Your task to perform on an android device: toggle notification dots Image 0: 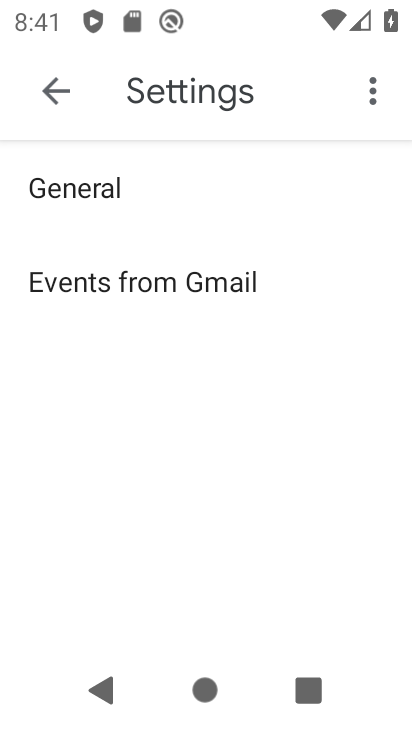
Step 0: press home button
Your task to perform on an android device: toggle notification dots Image 1: 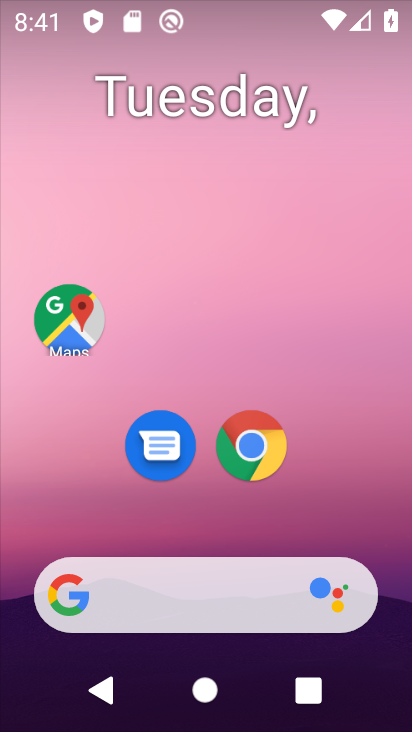
Step 1: drag from (305, 518) to (316, 58)
Your task to perform on an android device: toggle notification dots Image 2: 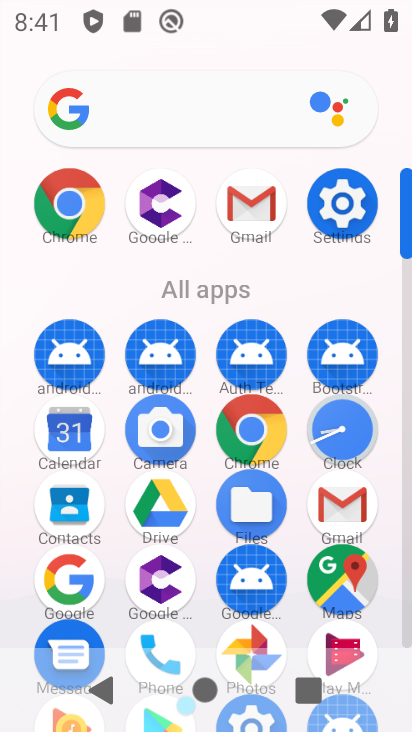
Step 2: click (351, 181)
Your task to perform on an android device: toggle notification dots Image 3: 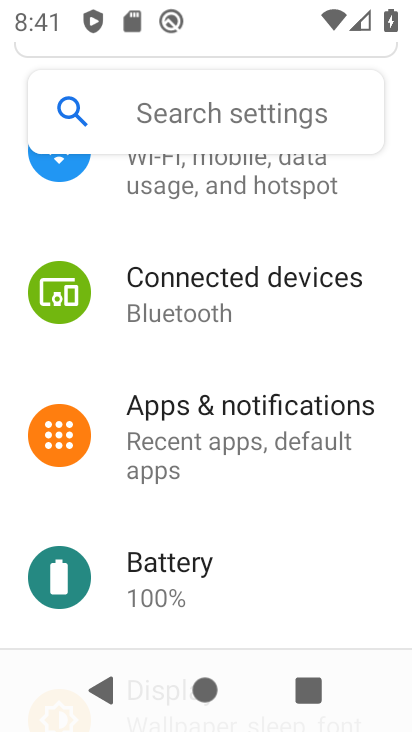
Step 3: click (154, 441)
Your task to perform on an android device: toggle notification dots Image 4: 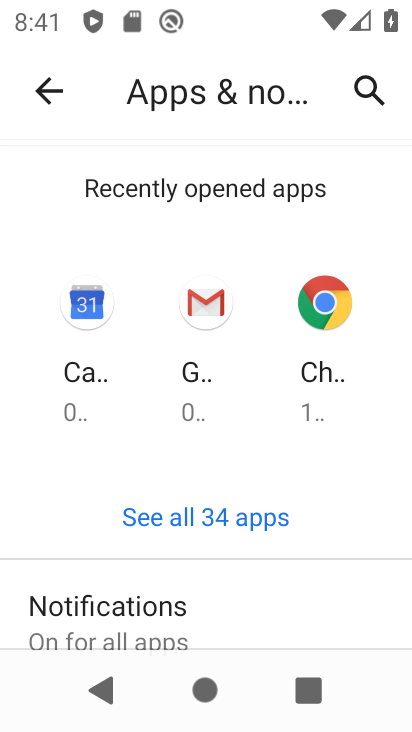
Step 4: drag from (293, 550) to (289, 227)
Your task to perform on an android device: toggle notification dots Image 5: 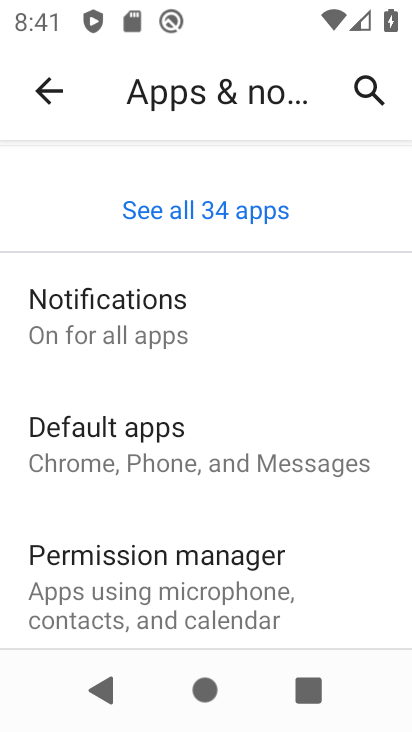
Step 5: click (257, 302)
Your task to perform on an android device: toggle notification dots Image 6: 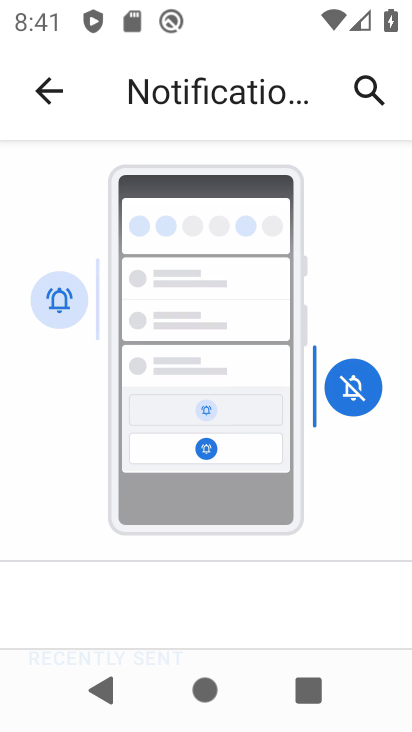
Step 6: drag from (297, 568) to (372, 6)
Your task to perform on an android device: toggle notification dots Image 7: 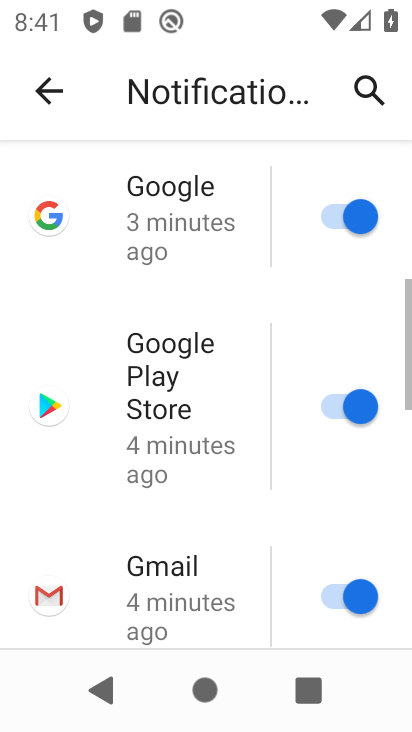
Step 7: drag from (229, 439) to (284, 9)
Your task to perform on an android device: toggle notification dots Image 8: 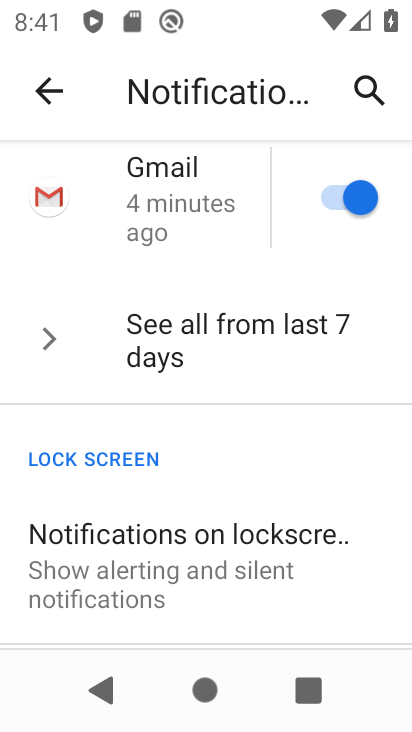
Step 8: drag from (216, 506) to (238, 21)
Your task to perform on an android device: toggle notification dots Image 9: 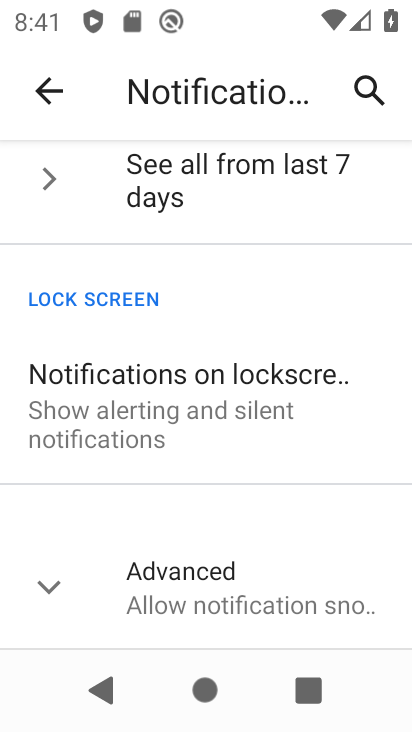
Step 9: click (147, 570)
Your task to perform on an android device: toggle notification dots Image 10: 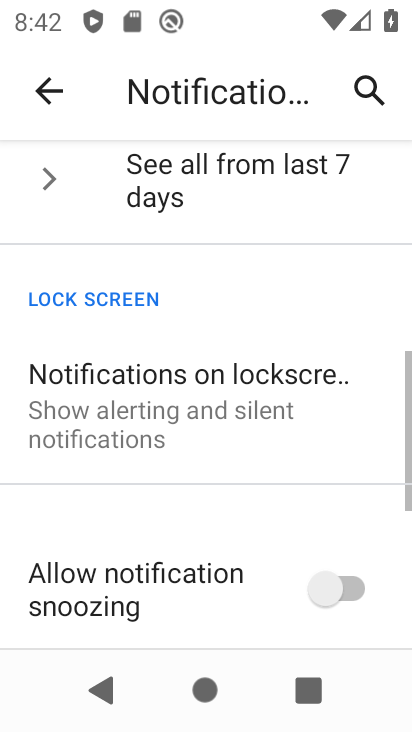
Step 10: drag from (291, 601) to (314, 282)
Your task to perform on an android device: toggle notification dots Image 11: 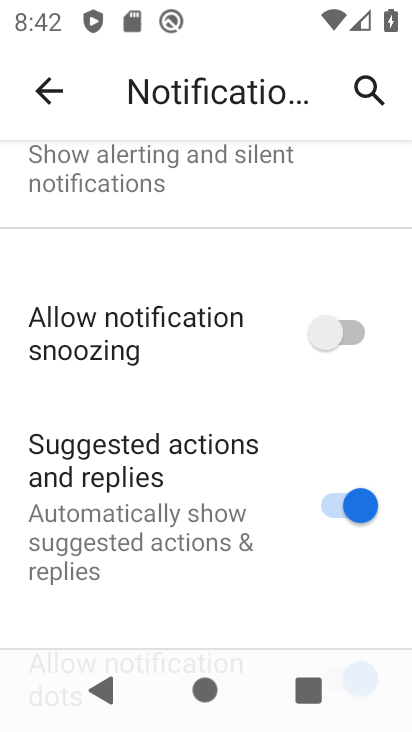
Step 11: drag from (315, 414) to (342, 169)
Your task to perform on an android device: toggle notification dots Image 12: 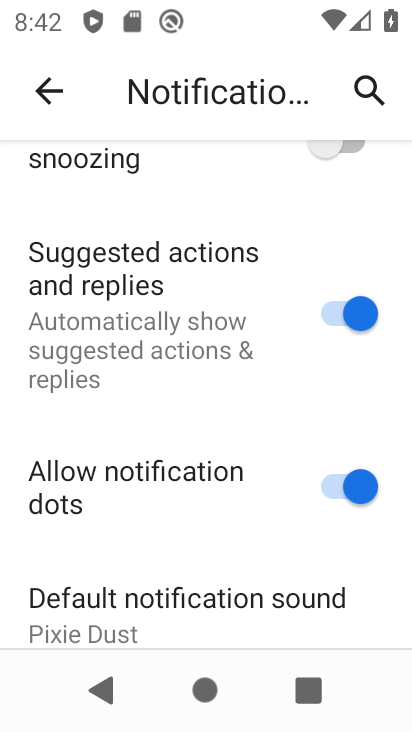
Step 12: click (356, 474)
Your task to perform on an android device: toggle notification dots Image 13: 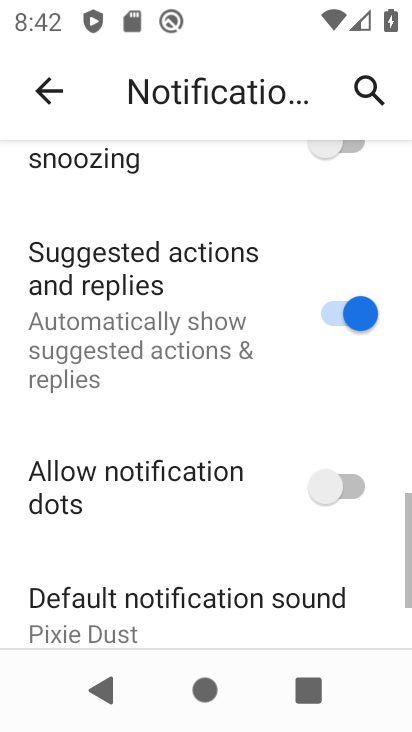
Step 13: task complete